Your task to perform on an android device: change your default location settings in chrome Image 0: 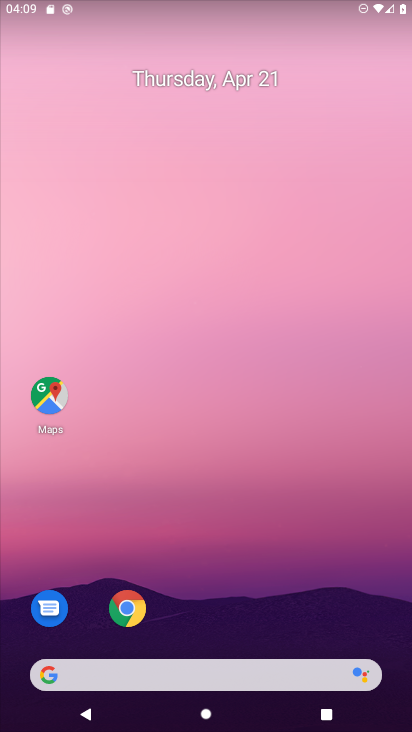
Step 0: drag from (285, 426) to (253, 204)
Your task to perform on an android device: change your default location settings in chrome Image 1: 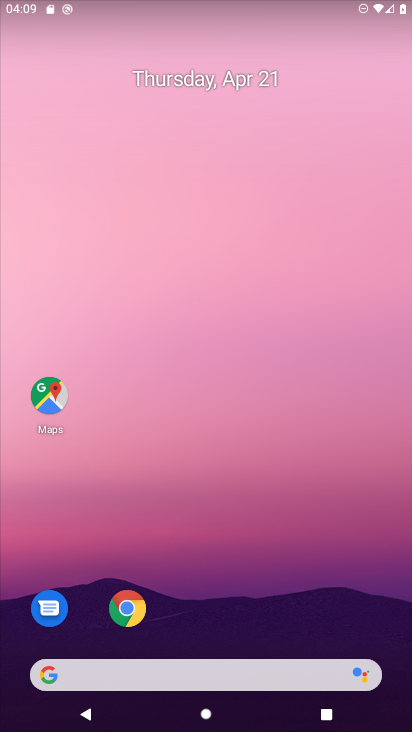
Step 1: drag from (215, 612) to (242, 236)
Your task to perform on an android device: change your default location settings in chrome Image 2: 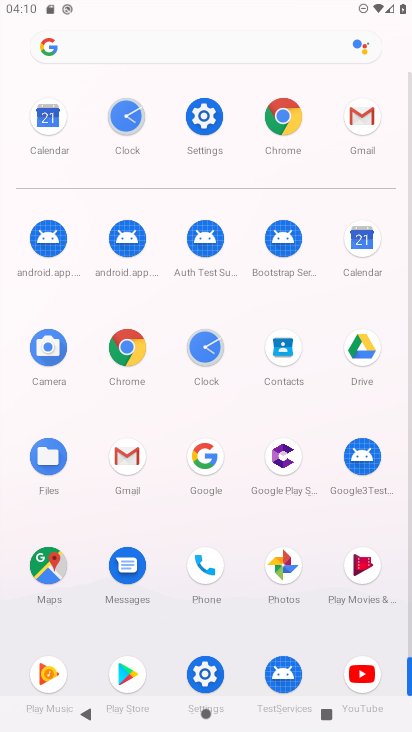
Step 2: click (132, 347)
Your task to perform on an android device: change your default location settings in chrome Image 3: 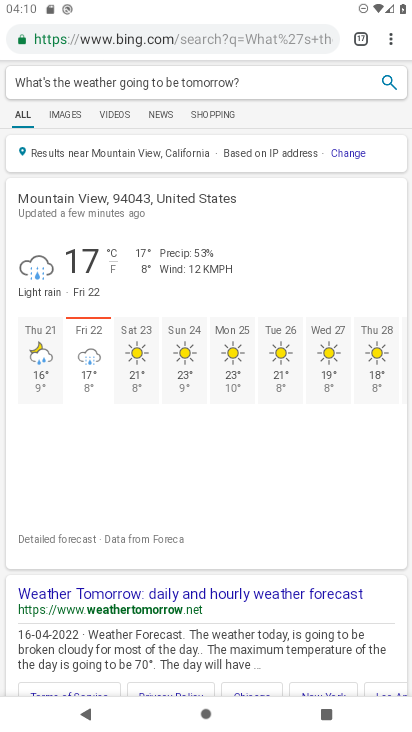
Step 3: click (394, 34)
Your task to perform on an android device: change your default location settings in chrome Image 4: 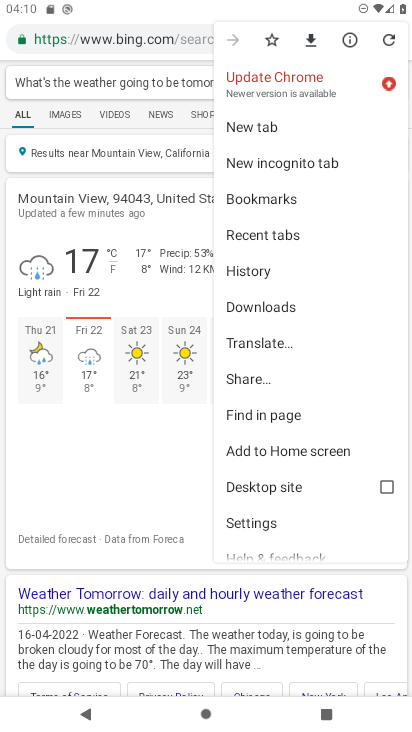
Step 4: click (276, 124)
Your task to perform on an android device: change your default location settings in chrome Image 5: 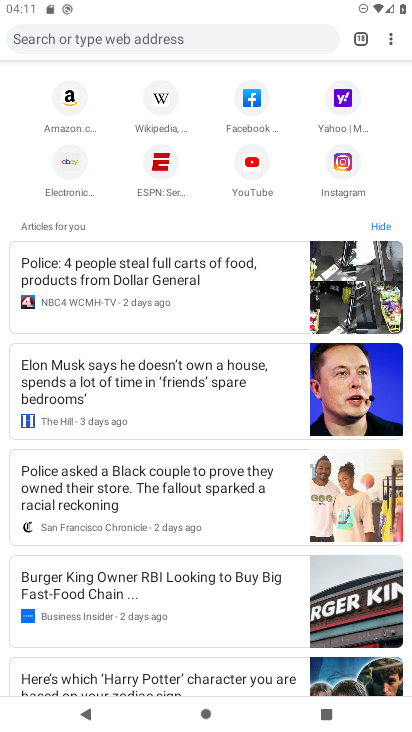
Step 5: click (382, 36)
Your task to perform on an android device: change your default location settings in chrome Image 6: 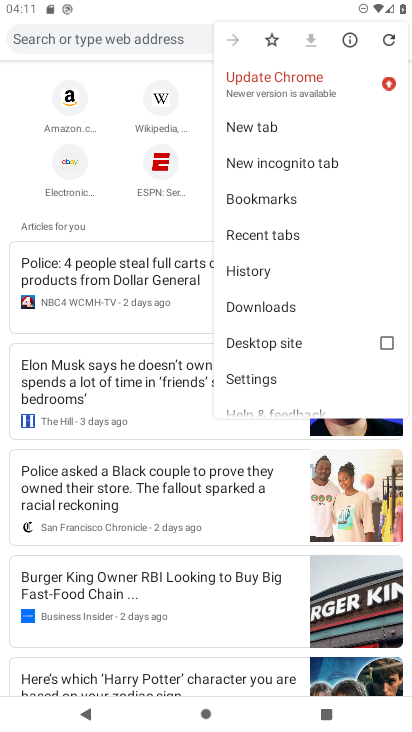
Step 6: click (273, 376)
Your task to perform on an android device: change your default location settings in chrome Image 7: 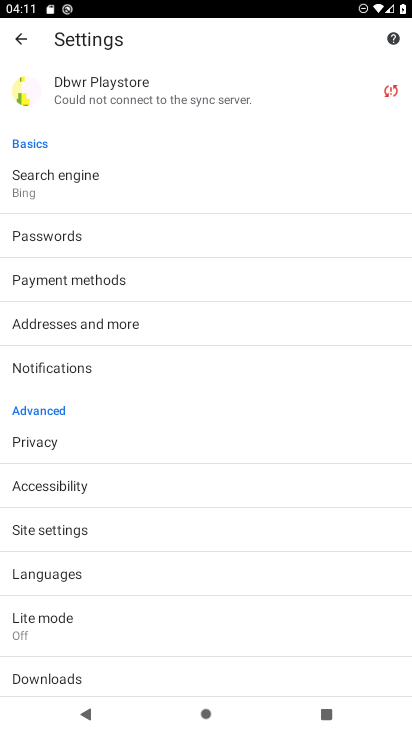
Step 7: click (126, 190)
Your task to perform on an android device: change your default location settings in chrome Image 8: 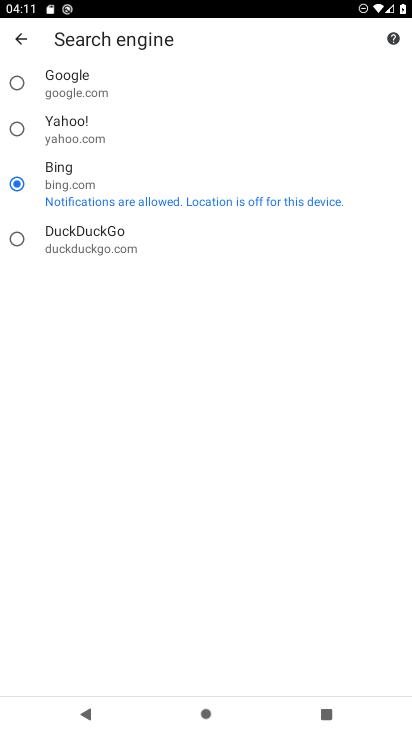
Step 8: click (36, 82)
Your task to perform on an android device: change your default location settings in chrome Image 9: 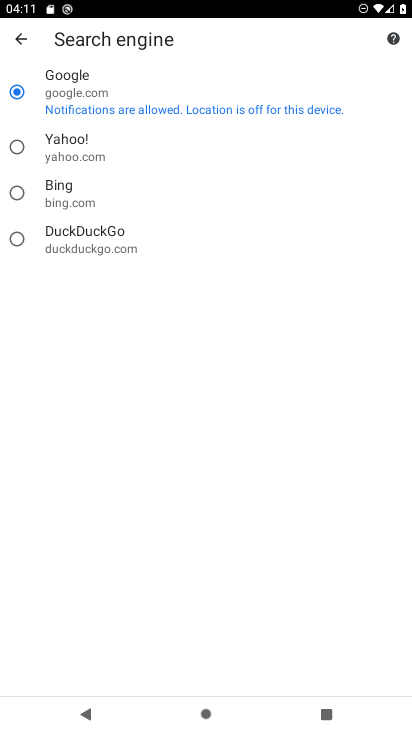
Step 9: task complete